Your task to perform on an android device: clear all cookies in the chrome app Image 0: 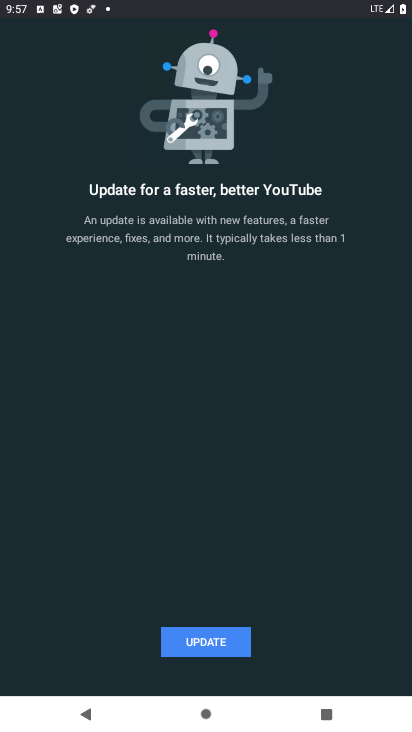
Step 0: press home button
Your task to perform on an android device: clear all cookies in the chrome app Image 1: 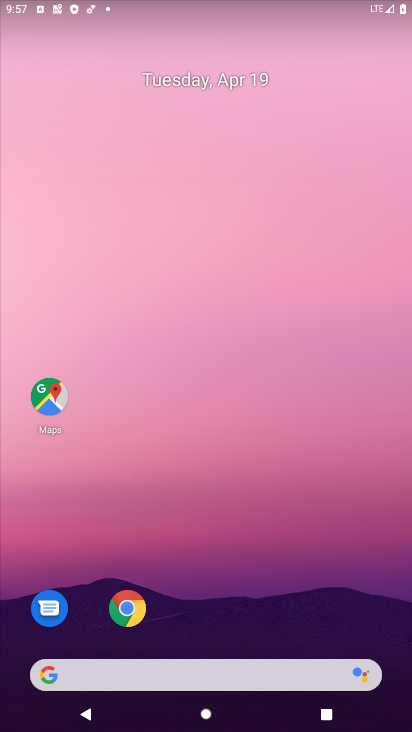
Step 1: click (126, 610)
Your task to perform on an android device: clear all cookies in the chrome app Image 2: 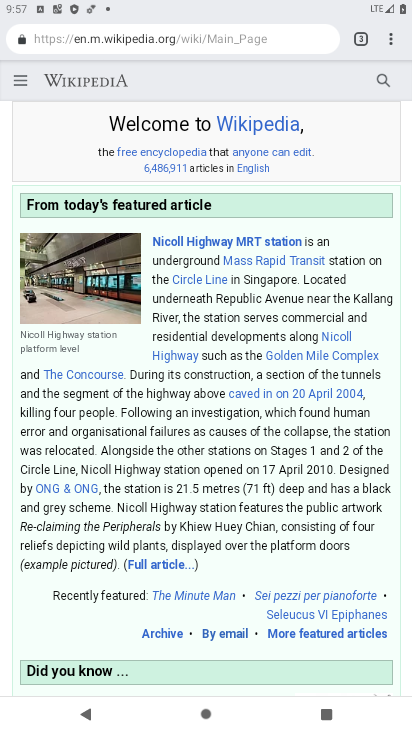
Step 2: click (388, 40)
Your task to perform on an android device: clear all cookies in the chrome app Image 3: 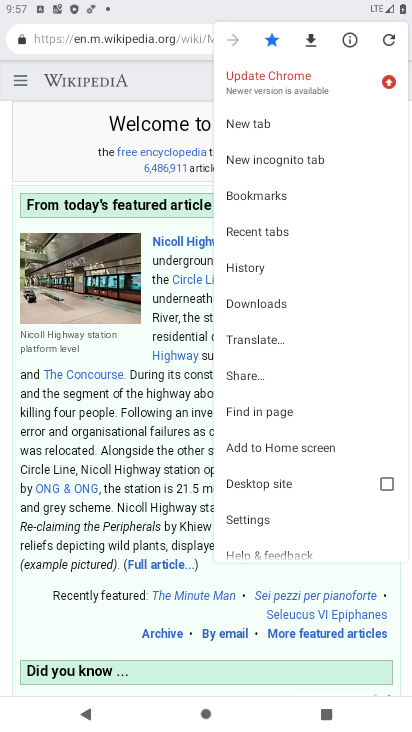
Step 3: click (248, 264)
Your task to perform on an android device: clear all cookies in the chrome app Image 4: 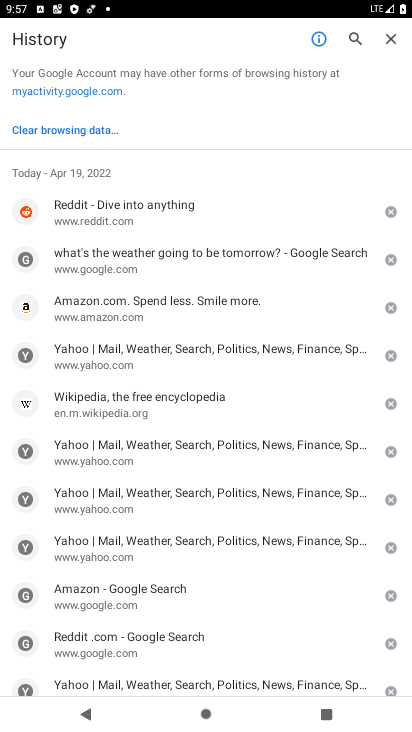
Step 4: click (53, 131)
Your task to perform on an android device: clear all cookies in the chrome app Image 5: 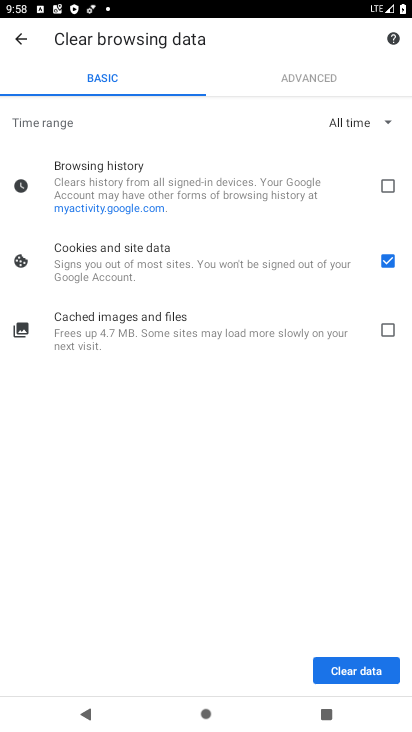
Step 5: click (353, 668)
Your task to perform on an android device: clear all cookies in the chrome app Image 6: 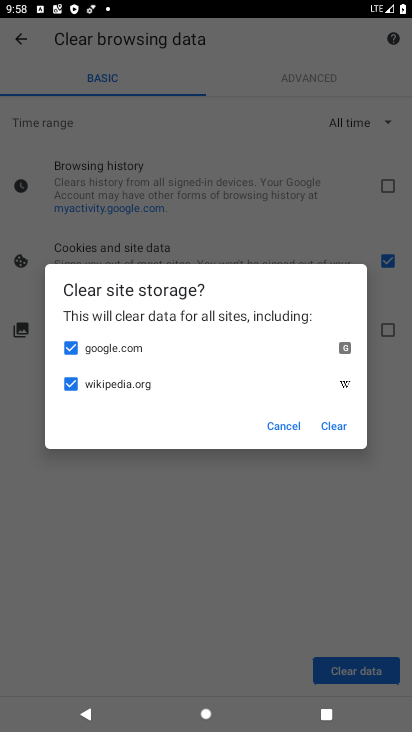
Step 6: click (331, 431)
Your task to perform on an android device: clear all cookies in the chrome app Image 7: 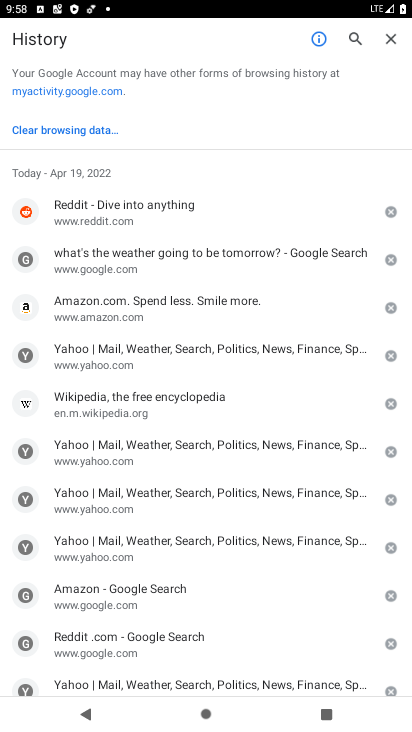
Step 7: task complete